Your task to perform on an android device: turn off notifications settings in the gmail app Image 0: 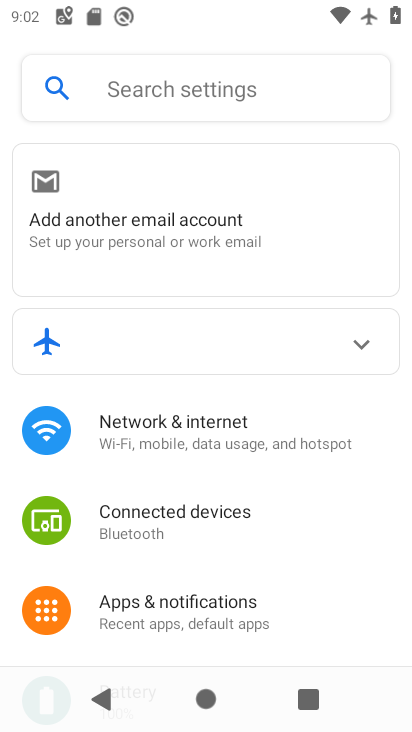
Step 0: click (184, 617)
Your task to perform on an android device: turn off notifications settings in the gmail app Image 1: 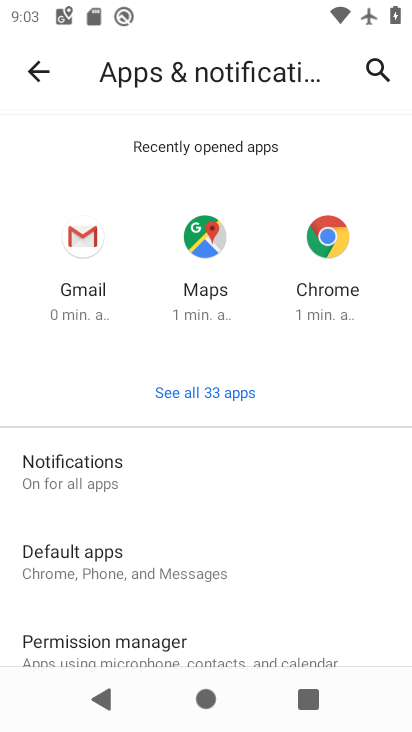
Step 1: click (72, 243)
Your task to perform on an android device: turn off notifications settings in the gmail app Image 2: 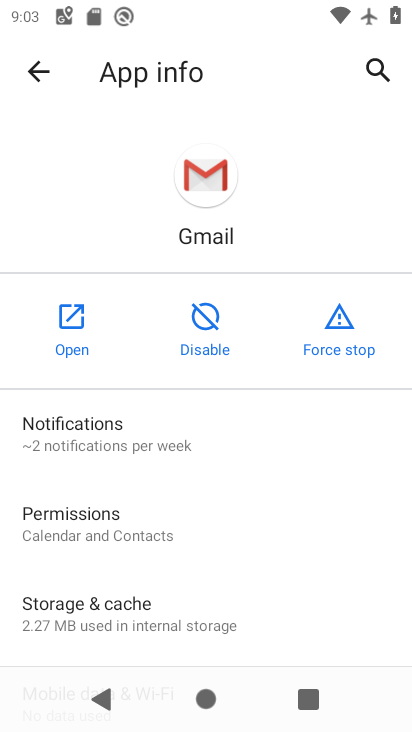
Step 2: click (106, 443)
Your task to perform on an android device: turn off notifications settings in the gmail app Image 3: 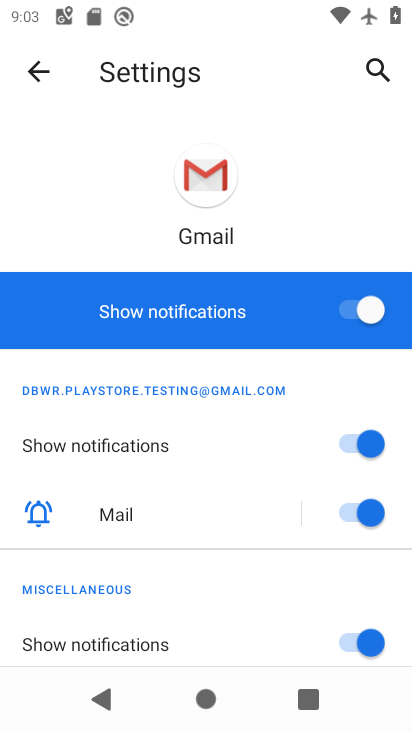
Step 3: click (320, 313)
Your task to perform on an android device: turn off notifications settings in the gmail app Image 4: 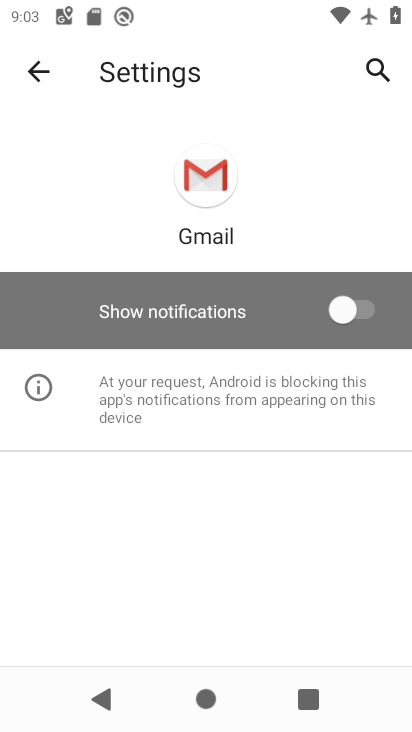
Step 4: task complete